Your task to perform on an android device: toggle airplane mode Image 0: 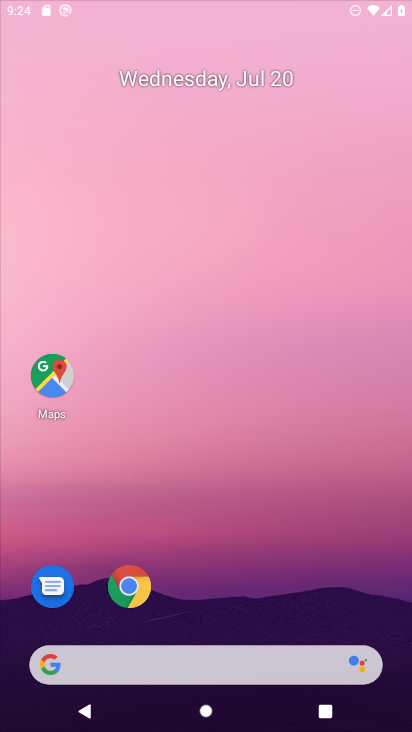
Step 0: click (144, 673)
Your task to perform on an android device: toggle airplane mode Image 1: 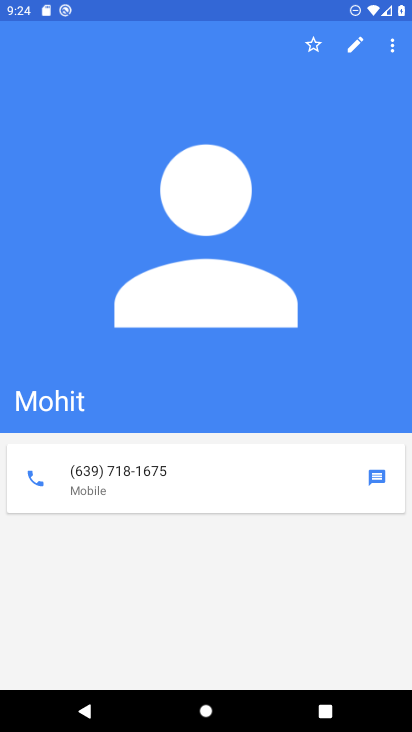
Step 1: drag from (264, 13) to (323, 543)
Your task to perform on an android device: toggle airplane mode Image 2: 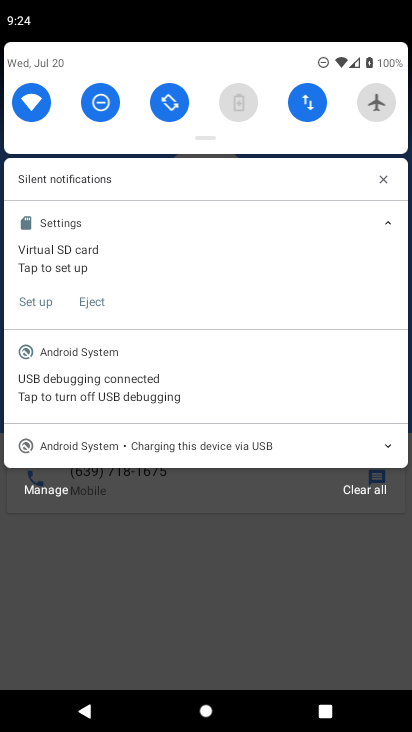
Step 2: click (377, 103)
Your task to perform on an android device: toggle airplane mode Image 3: 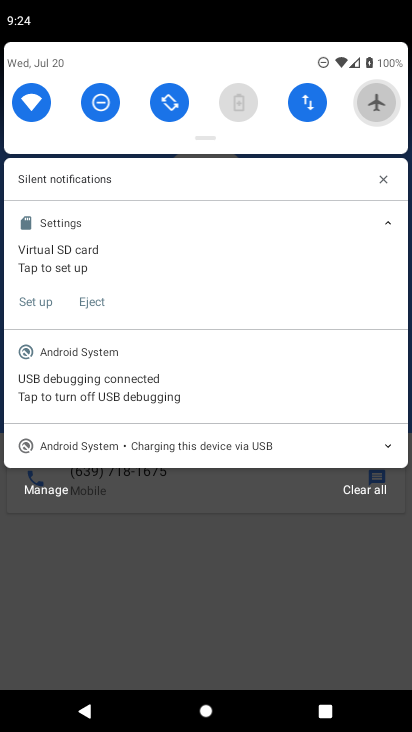
Step 3: click (377, 103)
Your task to perform on an android device: toggle airplane mode Image 4: 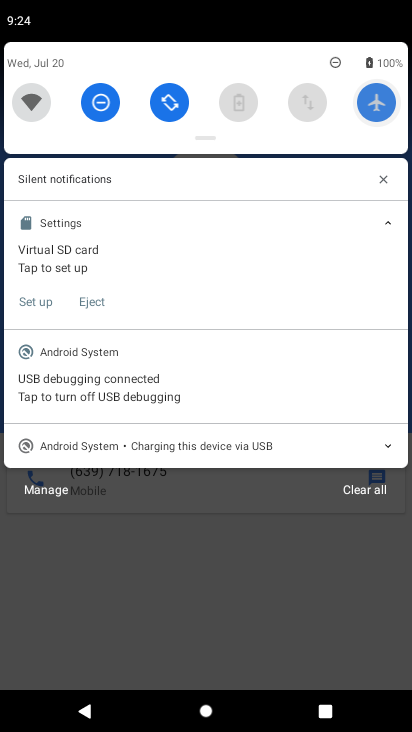
Step 4: click (377, 103)
Your task to perform on an android device: toggle airplane mode Image 5: 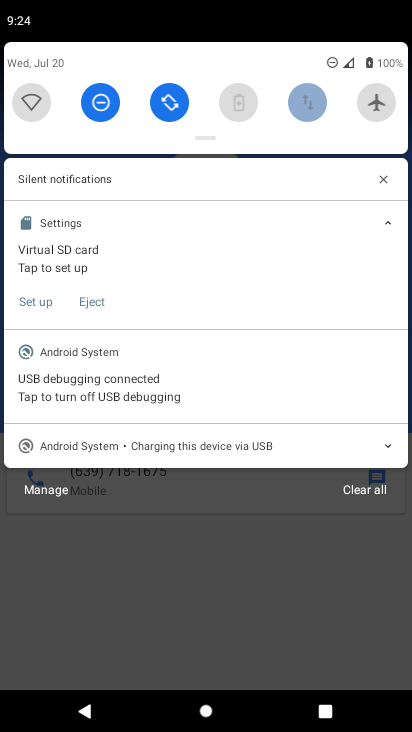
Step 5: click (377, 103)
Your task to perform on an android device: toggle airplane mode Image 6: 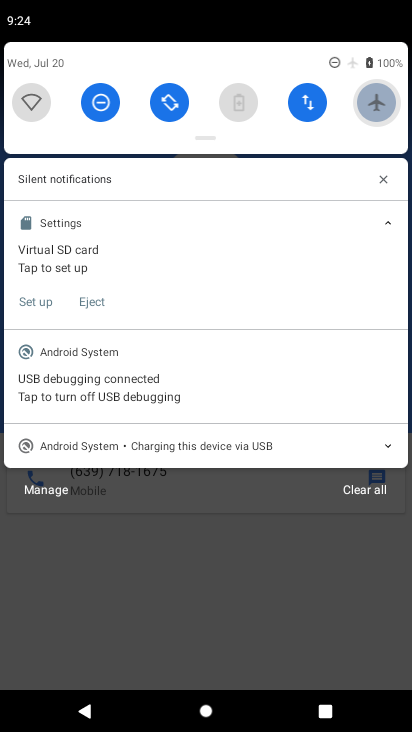
Step 6: click (377, 103)
Your task to perform on an android device: toggle airplane mode Image 7: 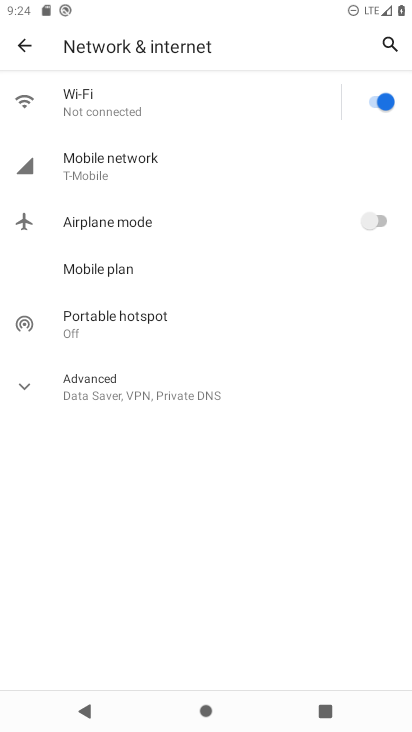
Step 7: task complete